Your task to perform on an android device: Open the phone app and click the voicemail tab. Image 0: 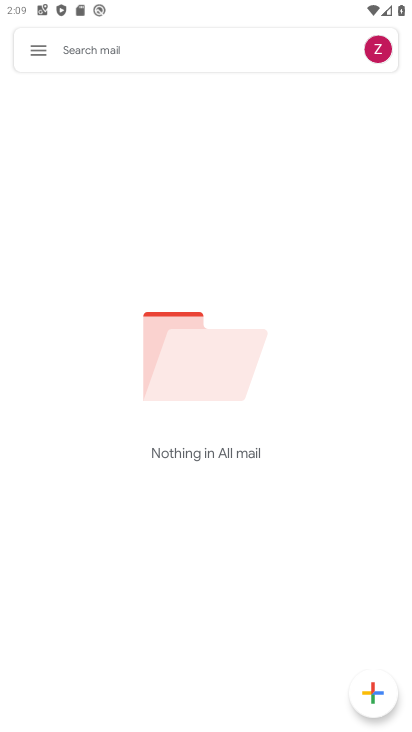
Step 0: press home button
Your task to perform on an android device: Open the phone app and click the voicemail tab. Image 1: 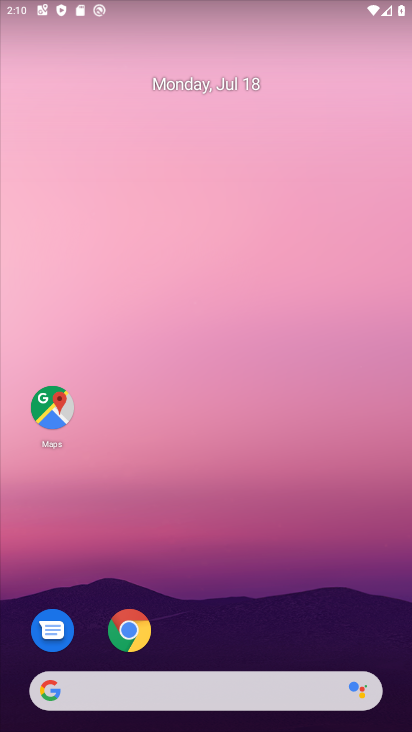
Step 1: drag from (369, 625) to (328, 260)
Your task to perform on an android device: Open the phone app and click the voicemail tab. Image 2: 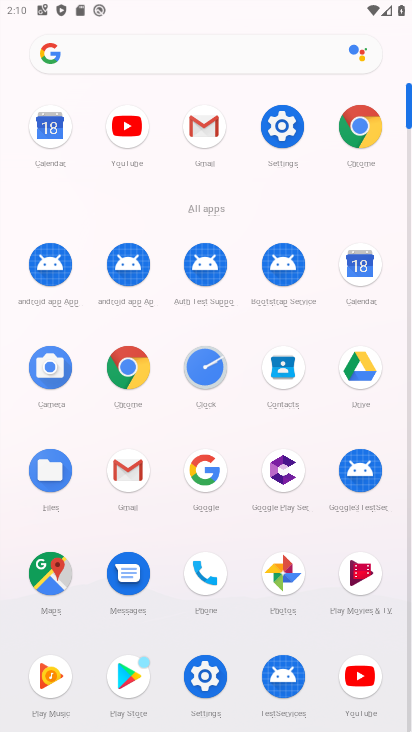
Step 2: click (205, 572)
Your task to perform on an android device: Open the phone app and click the voicemail tab. Image 3: 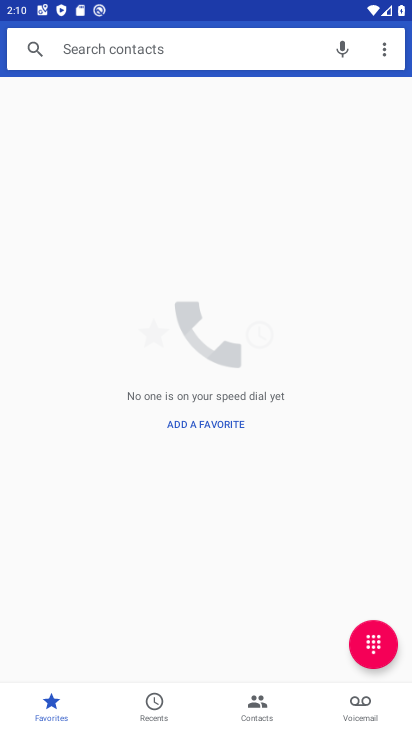
Step 3: click (363, 708)
Your task to perform on an android device: Open the phone app and click the voicemail tab. Image 4: 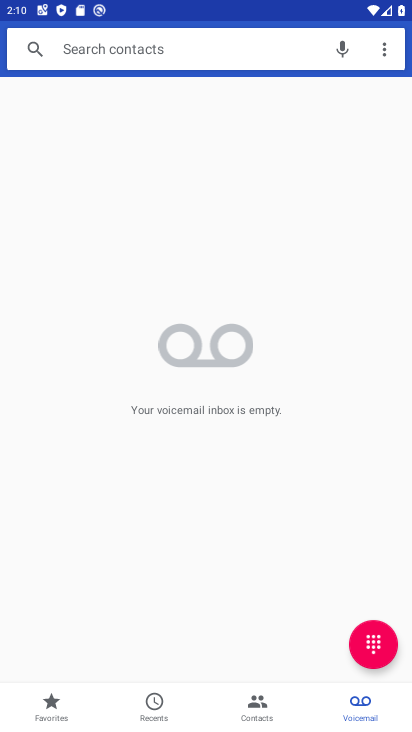
Step 4: task complete